Your task to perform on an android device: open app "VLC for Android" Image 0: 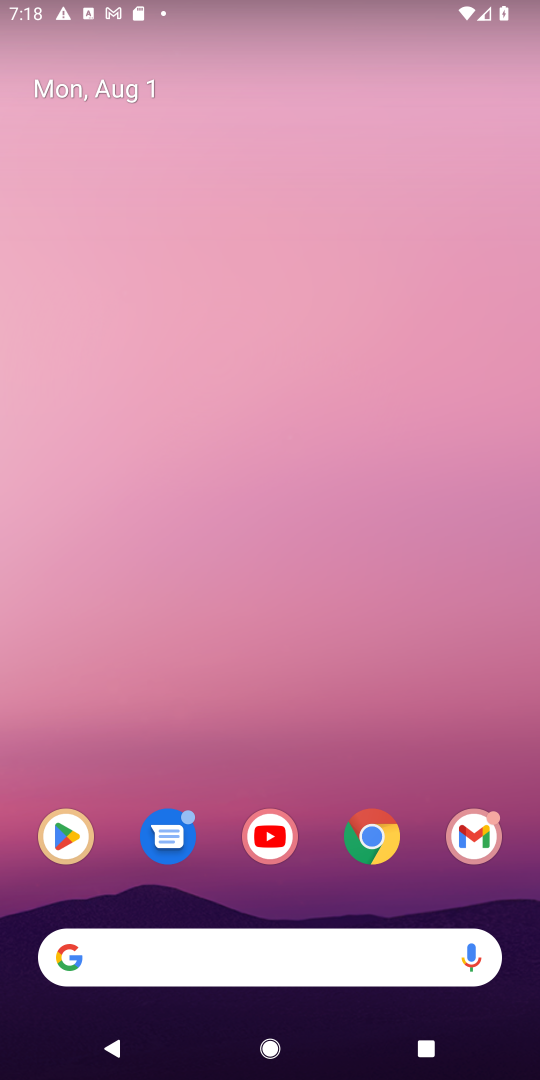
Step 0: click (70, 840)
Your task to perform on an android device: open app "VLC for Android" Image 1: 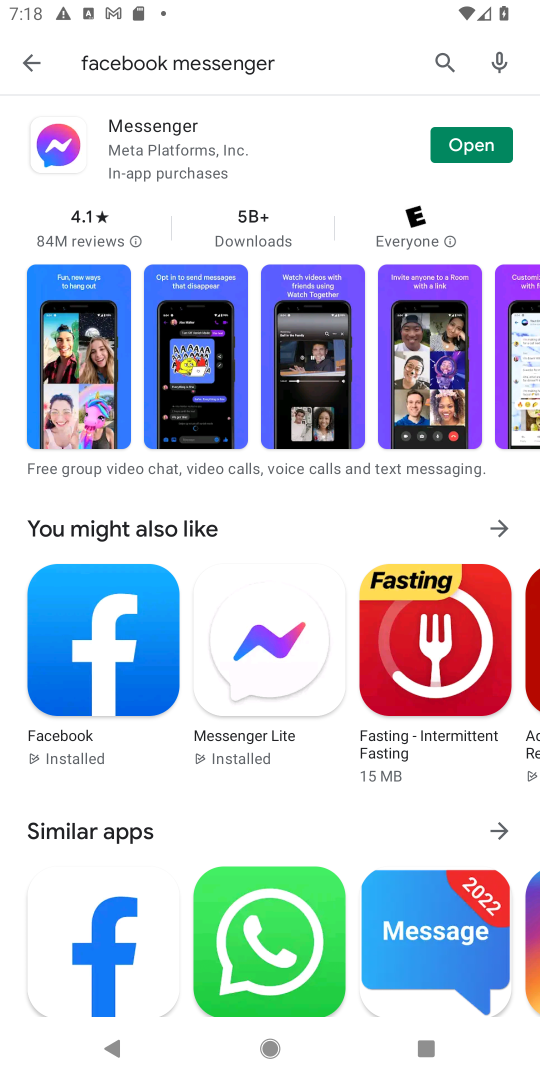
Step 1: click (449, 64)
Your task to perform on an android device: open app "VLC for Android" Image 2: 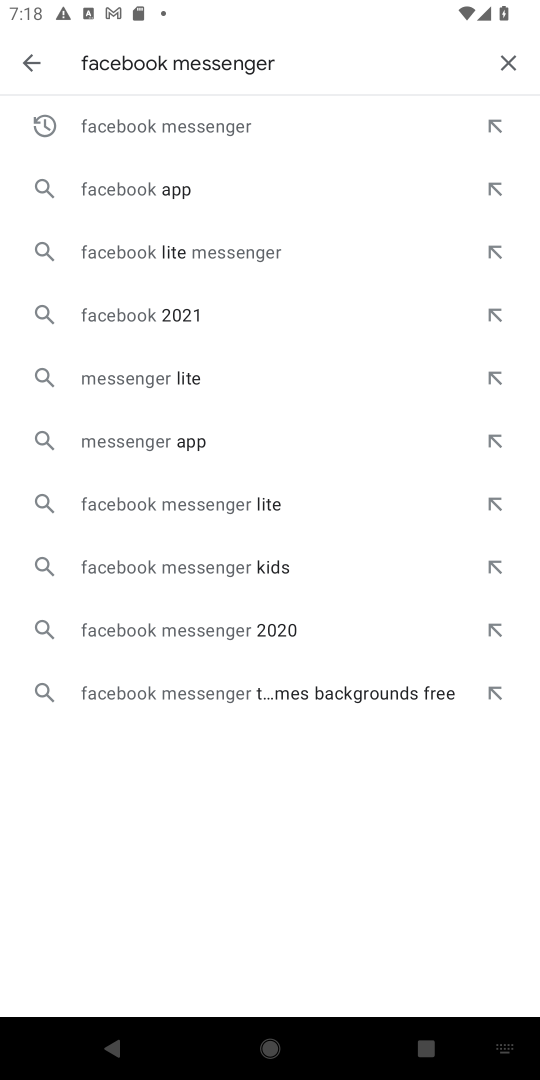
Step 2: click (508, 61)
Your task to perform on an android device: open app "VLC for Android" Image 3: 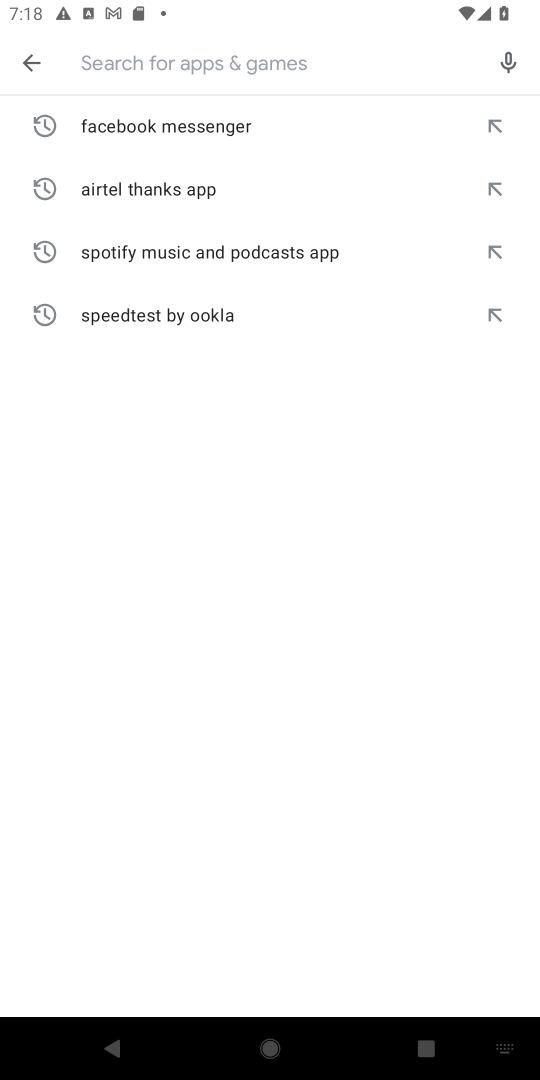
Step 3: type "VLC for Android"
Your task to perform on an android device: open app "VLC for Android" Image 4: 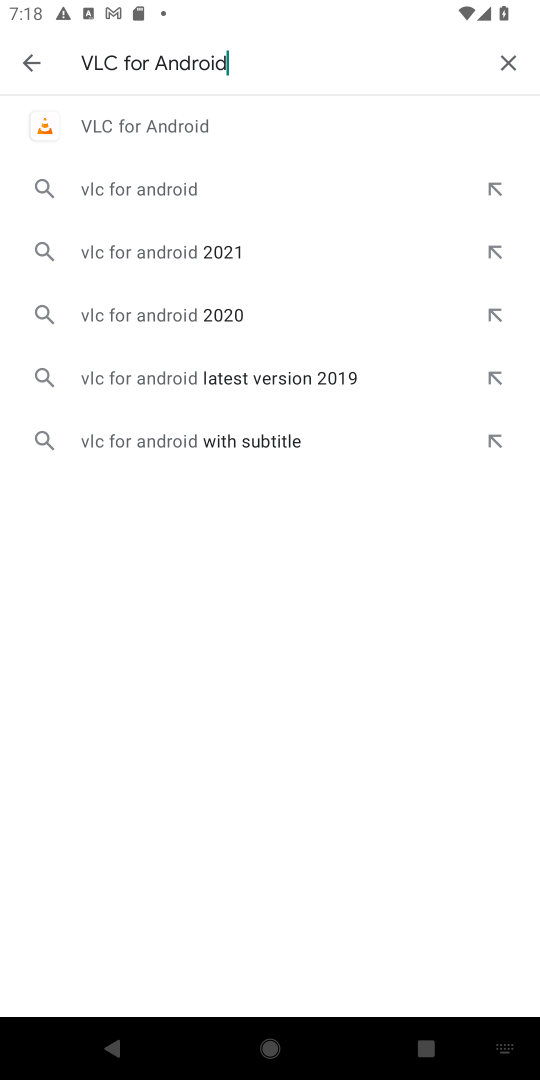
Step 4: click (189, 133)
Your task to perform on an android device: open app "VLC for Android" Image 5: 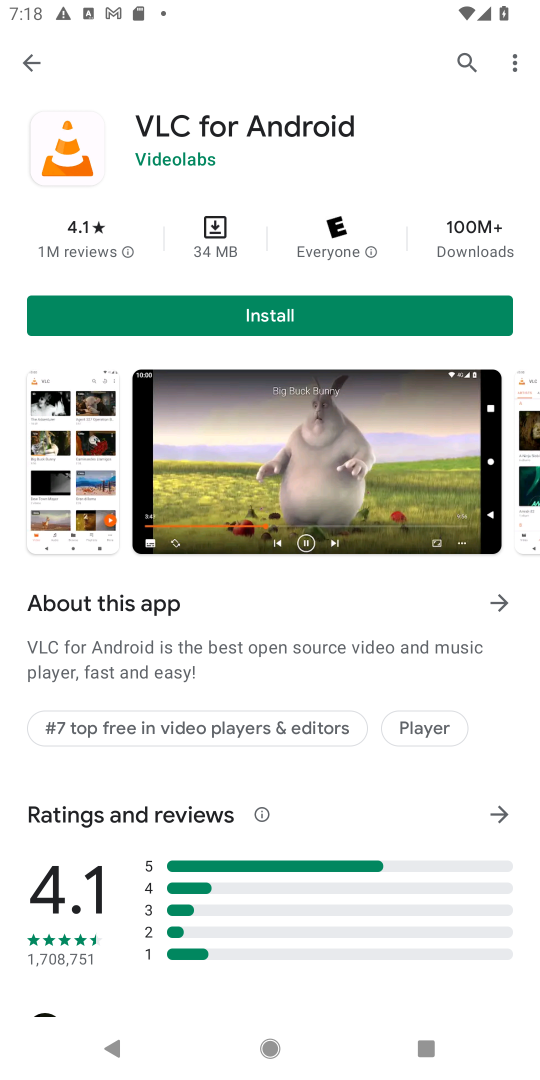
Step 5: task complete